Your task to perform on an android device: Search for the best custom wallets on Etsy. Image 0: 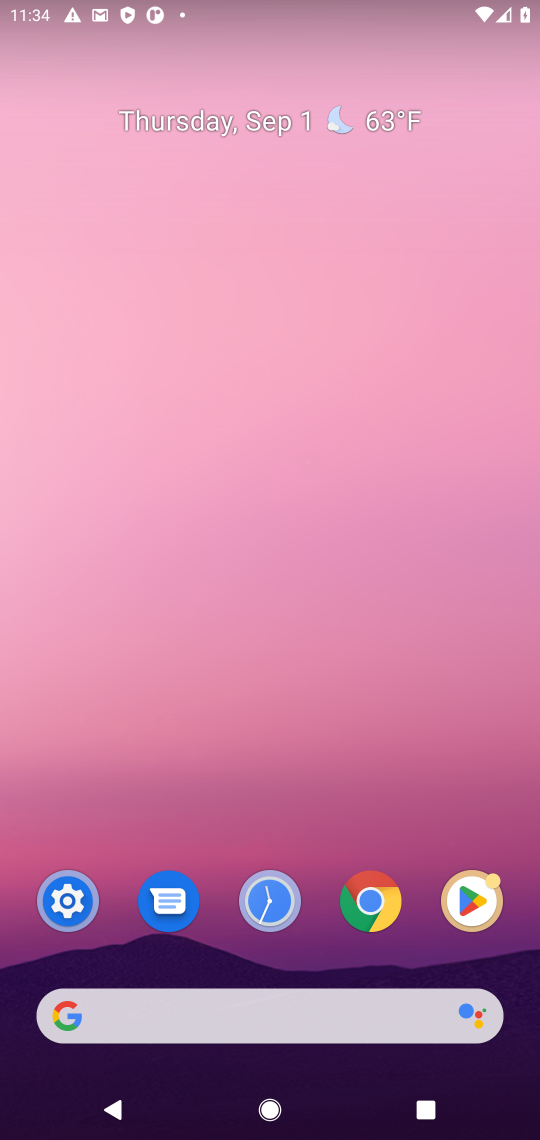
Step 0: click (346, 251)
Your task to perform on an android device: Search for the best custom wallets on Etsy. Image 1: 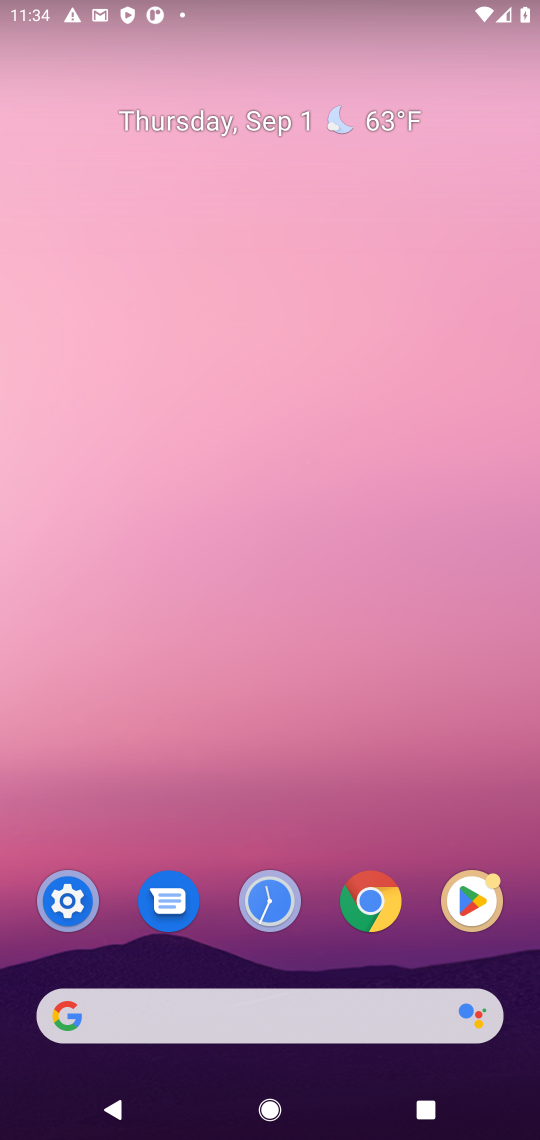
Step 1: drag from (242, 519) to (263, 271)
Your task to perform on an android device: Search for the best custom wallets on Etsy. Image 2: 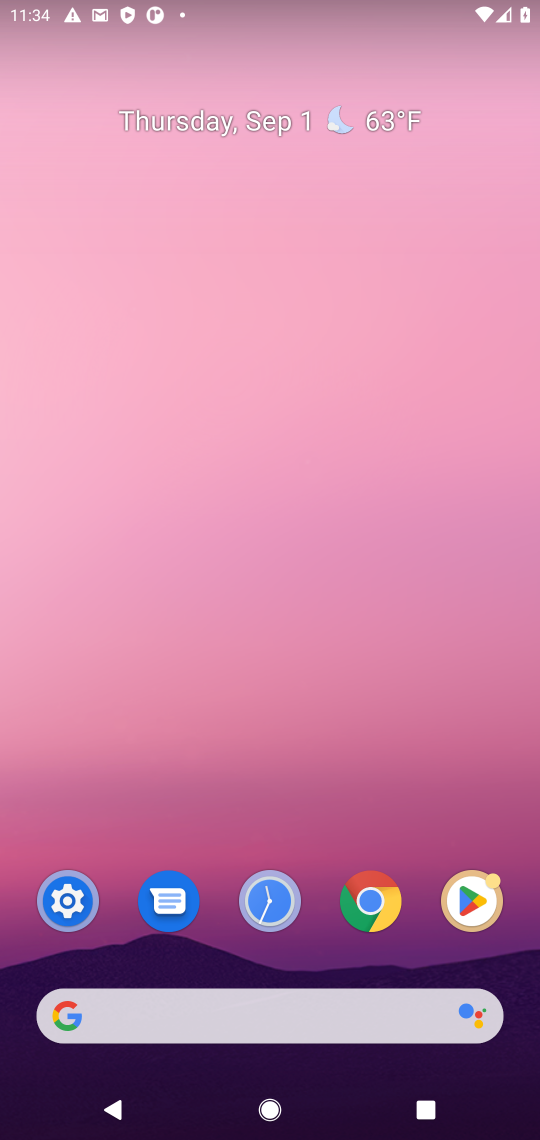
Step 2: drag from (252, 488) to (337, 410)
Your task to perform on an android device: Search for the best custom wallets on Etsy. Image 3: 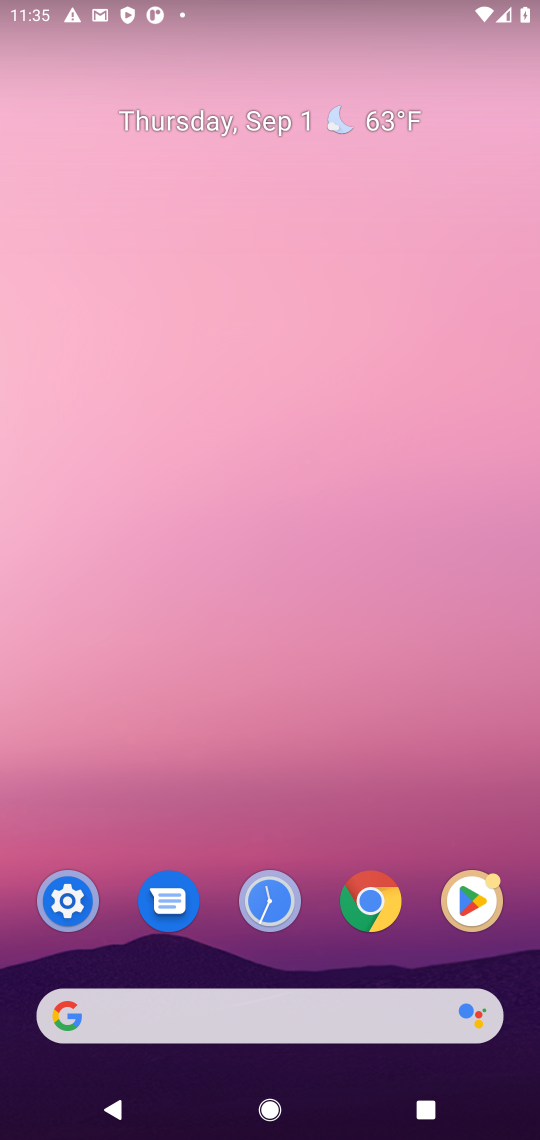
Step 3: click (338, 461)
Your task to perform on an android device: Search for the best custom wallets on Etsy. Image 4: 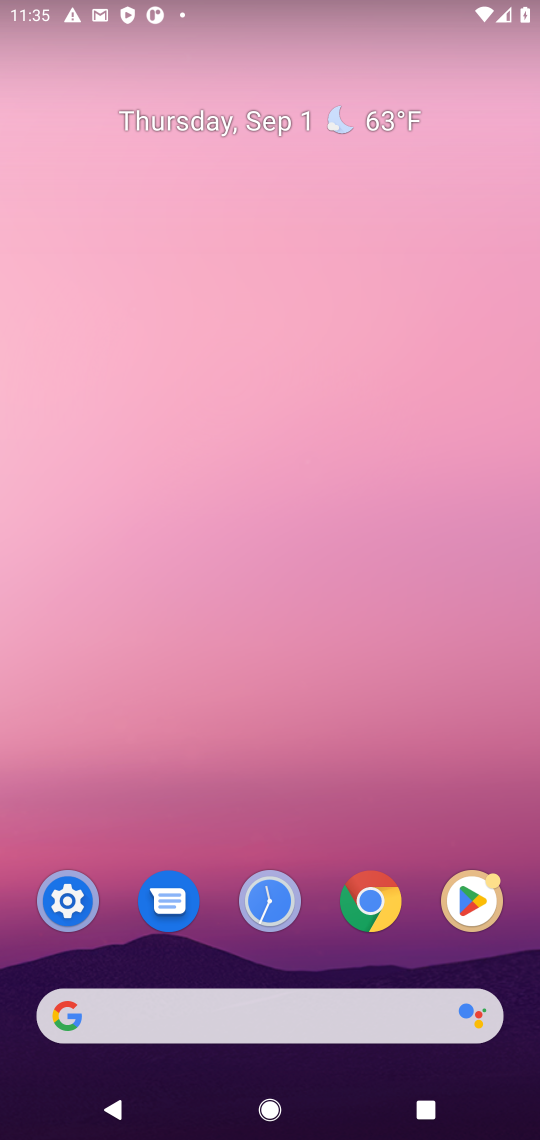
Step 4: click (292, 461)
Your task to perform on an android device: Search for the best custom wallets on Etsy. Image 5: 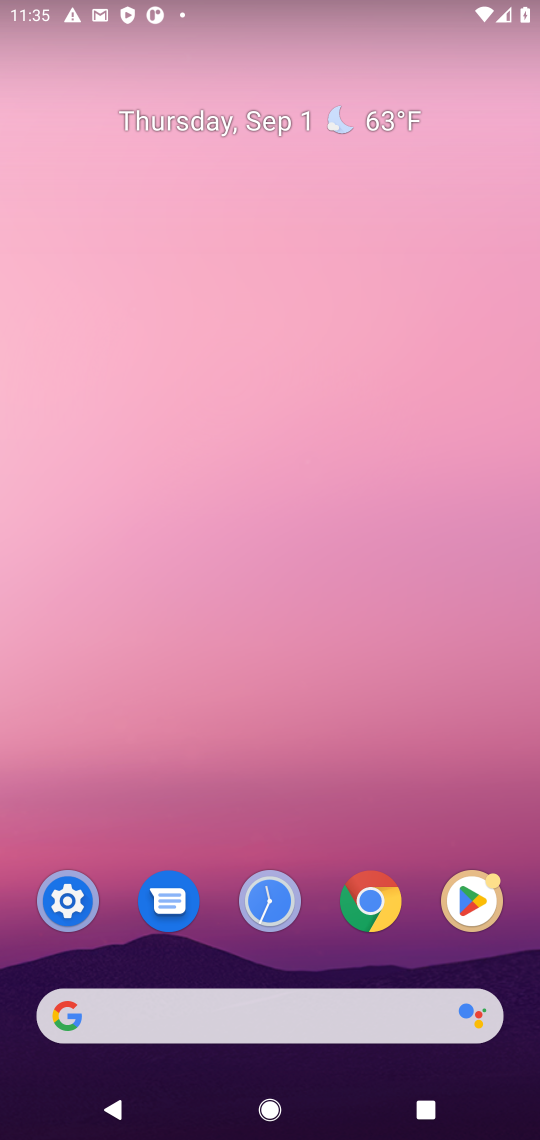
Step 5: drag from (272, 692) to (272, 406)
Your task to perform on an android device: Search for the best custom wallets on Etsy. Image 6: 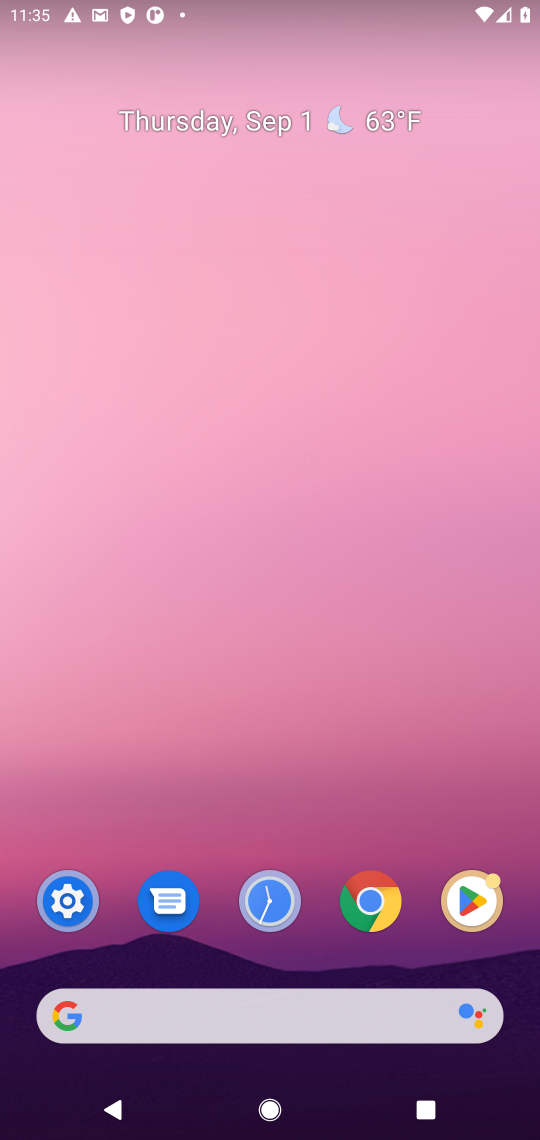
Step 6: drag from (244, 318) to (208, 375)
Your task to perform on an android device: Search for the best custom wallets on Etsy. Image 7: 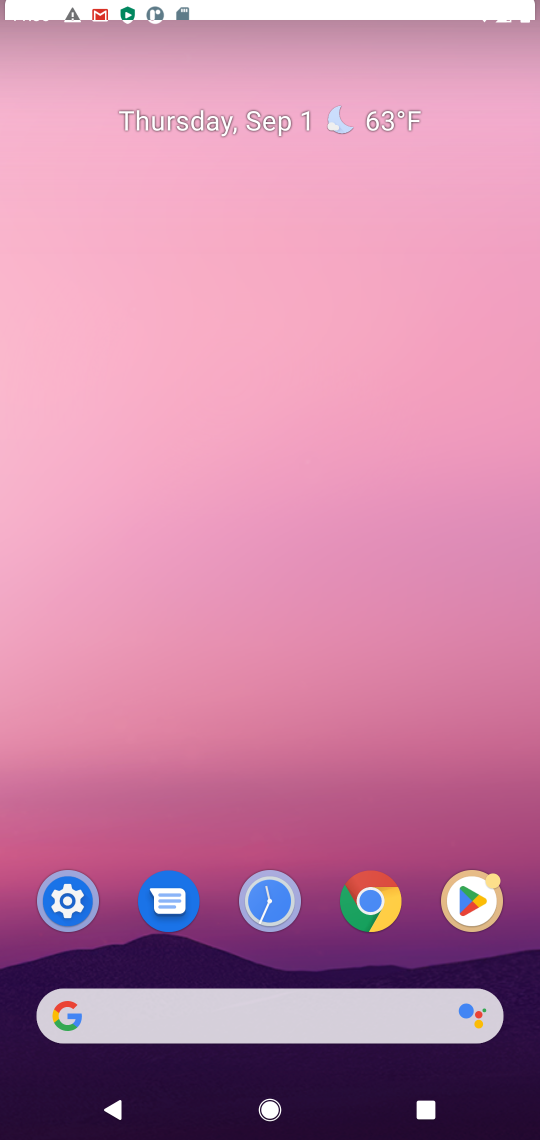
Step 7: click (268, 228)
Your task to perform on an android device: Search for the best custom wallets on Etsy. Image 8: 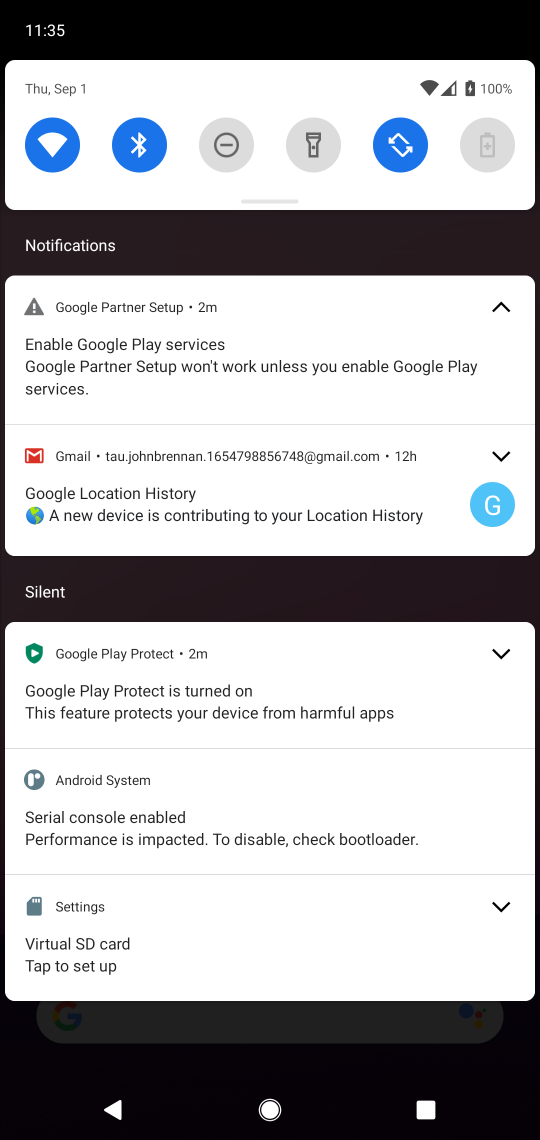
Step 8: click (313, 1070)
Your task to perform on an android device: Search for the best custom wallets on Etsy. Image 9: 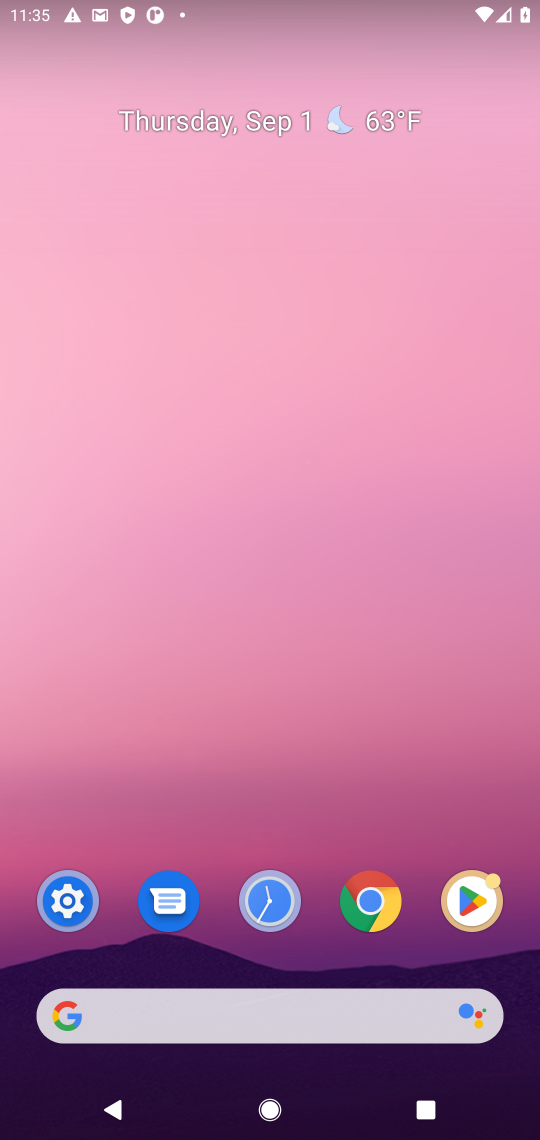
Step 9: drag from (213, 984) to (284, 580)
Your task to perform on an android device: Search for the best custom wallets on Etsy. Image 10: 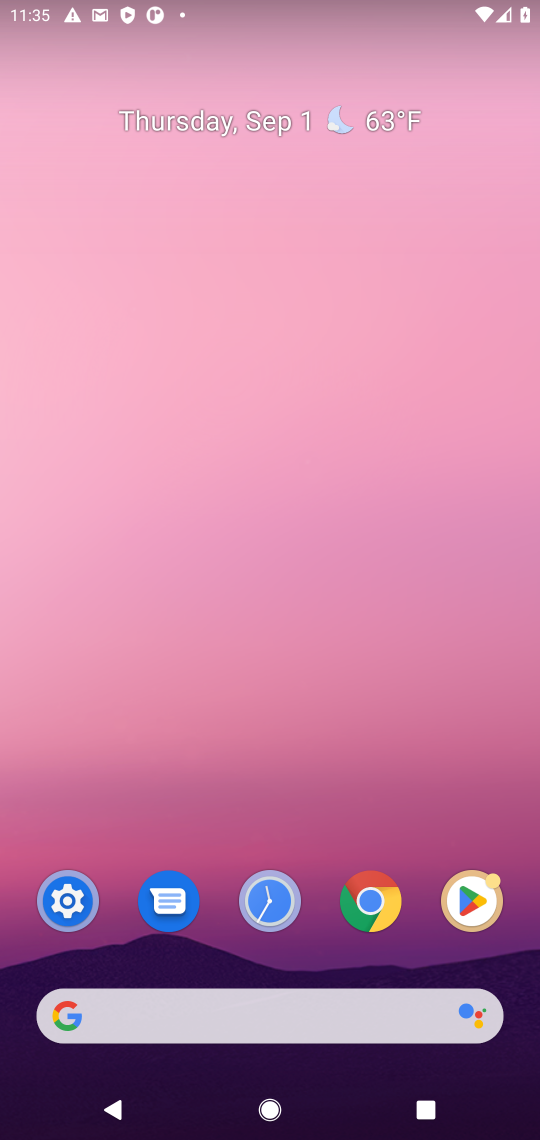
Step 10: click (292, 57)
Your task to perform on an android device: Search for the best custom wallets on Etsy. Image 11: 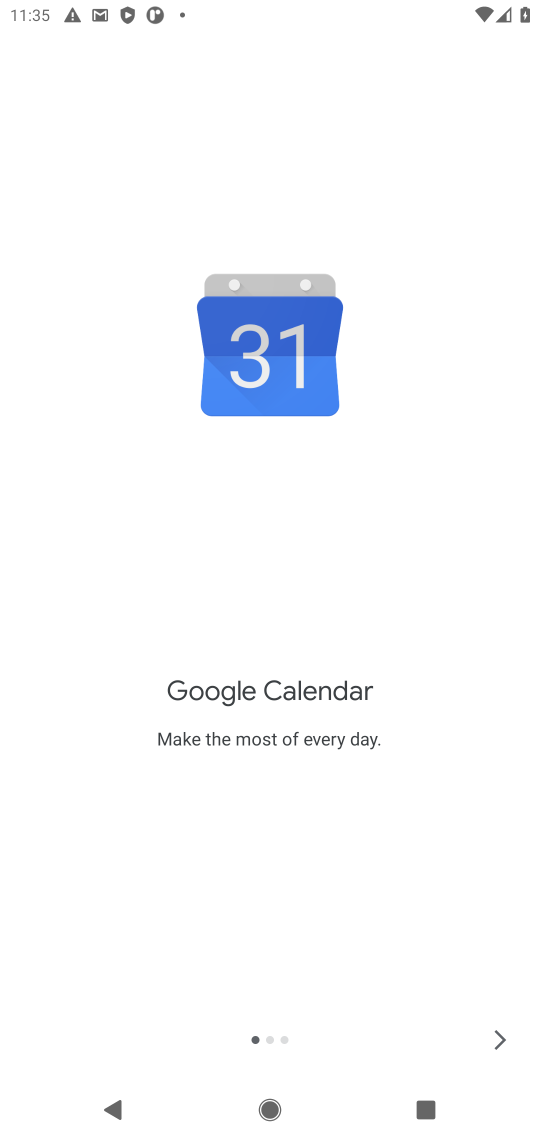
Step 11: click (483, 1033)
Your task to perform on an android device: Search for the best custom wallets on Etsy. Image 12: 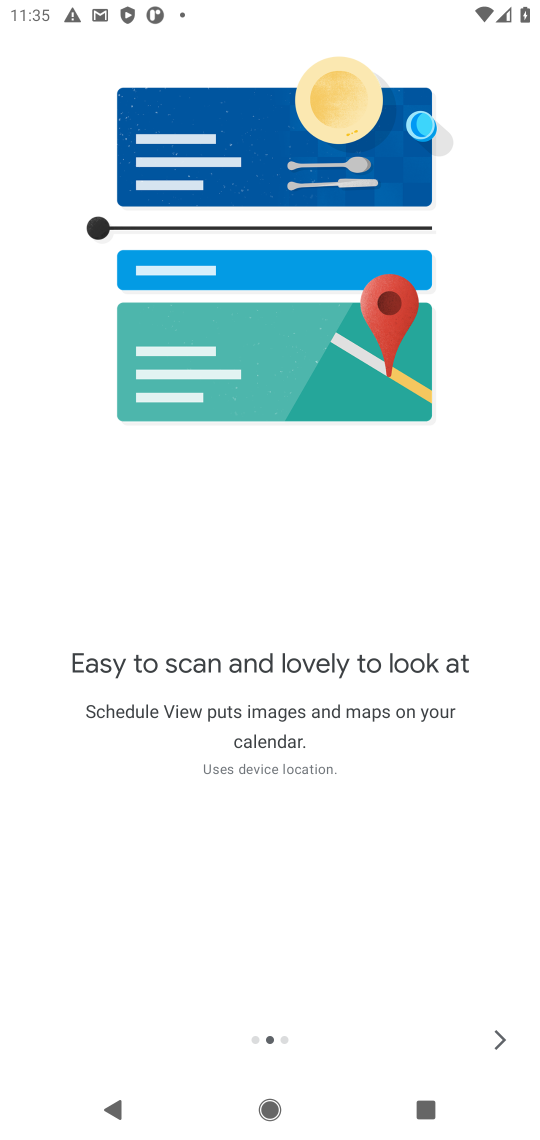
Step 12: press home button
Your task to perform on an android device: Search for the best custom wallets on Etsy. Image 13: 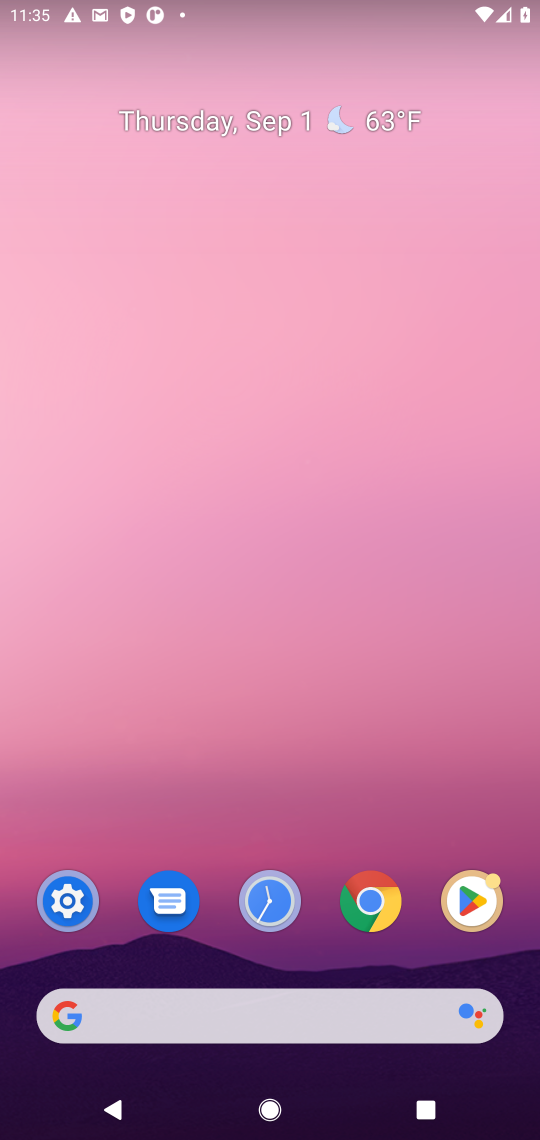
Step 13: drag from (253, 971) to (285, 325)
Your task to perform on an android device: Search for the best custom wallets on Etsy. Image 14: 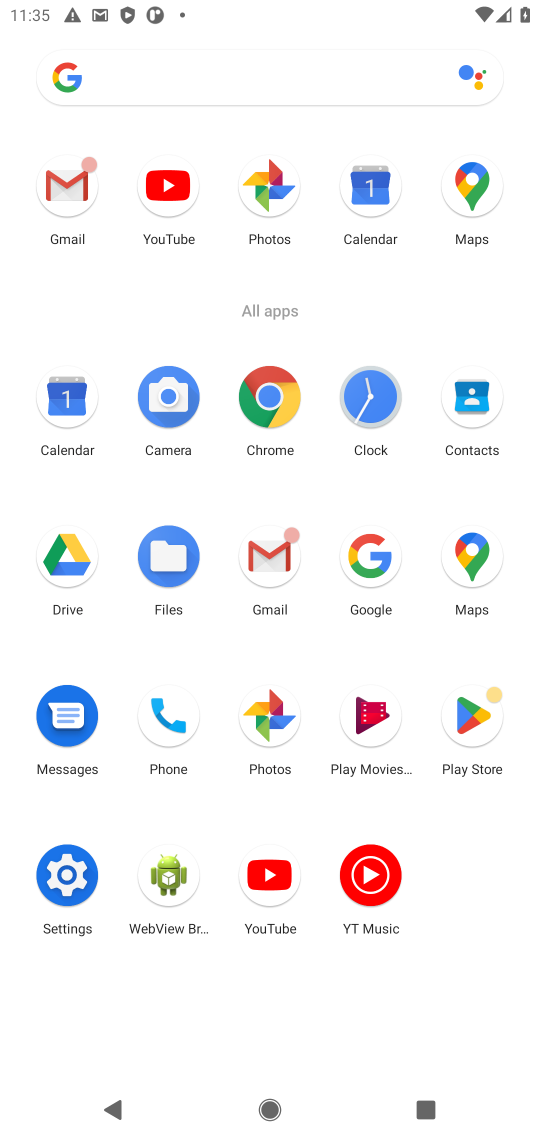
Step 14: drag from (371, 551) to (414, 370)
Your task to perform on an android device: Search for the best custom wallets on Etsy. Image 15: 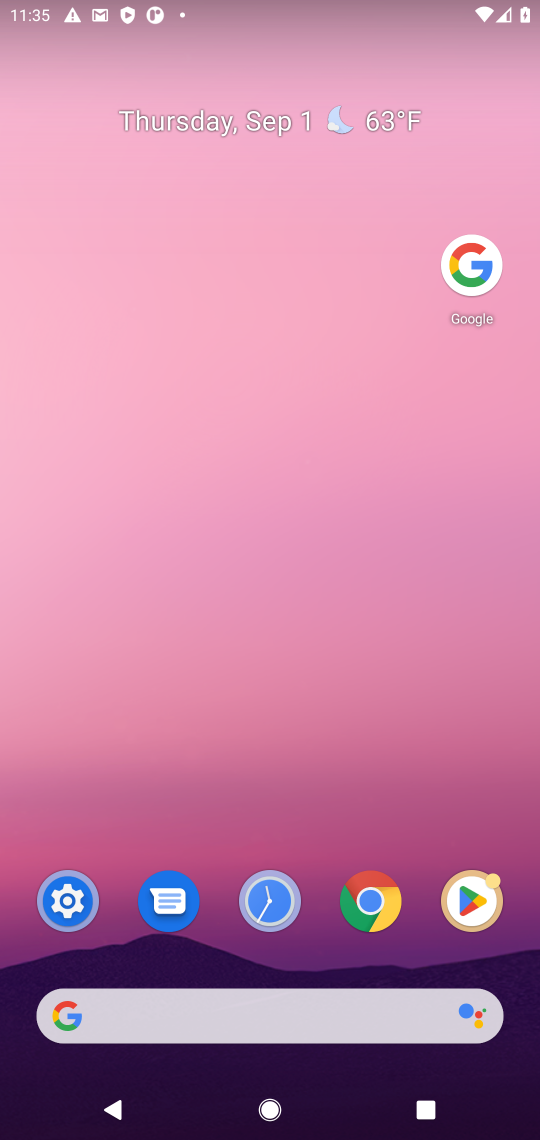
Step 15: click (467, 257)
Your task to perform on an android device: Search for the best custom wallets on Etsy. Image 16: 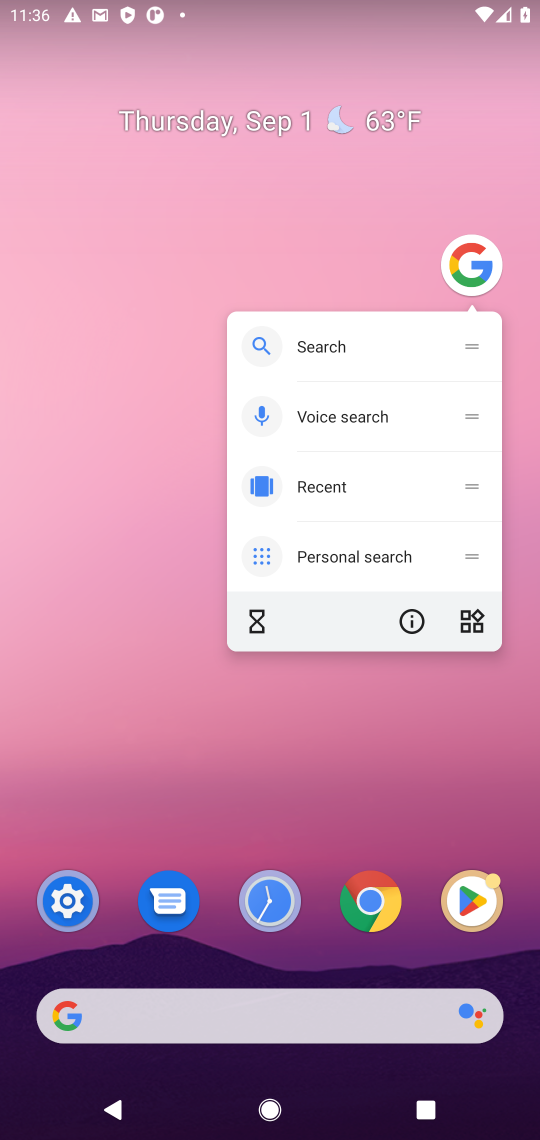
Step 16: click (464, 270)
Your task to perform on an android device: Search for the best custom wallets on Etsy. Image 17: 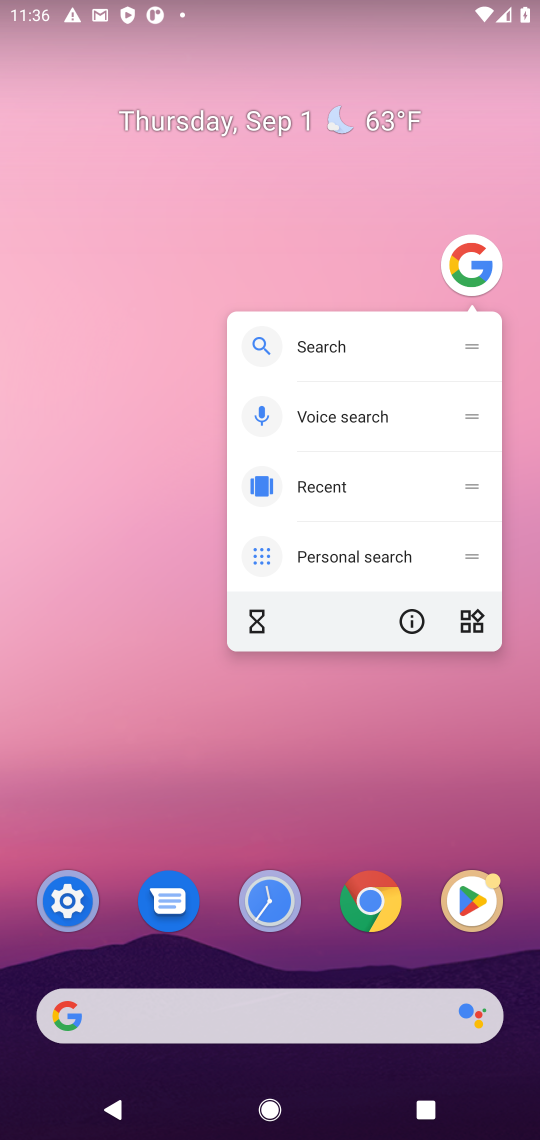
Step 17: click (455, 277)
Your task to perform on an android device: Search for the best custom wallets on Etsy. Image 18: 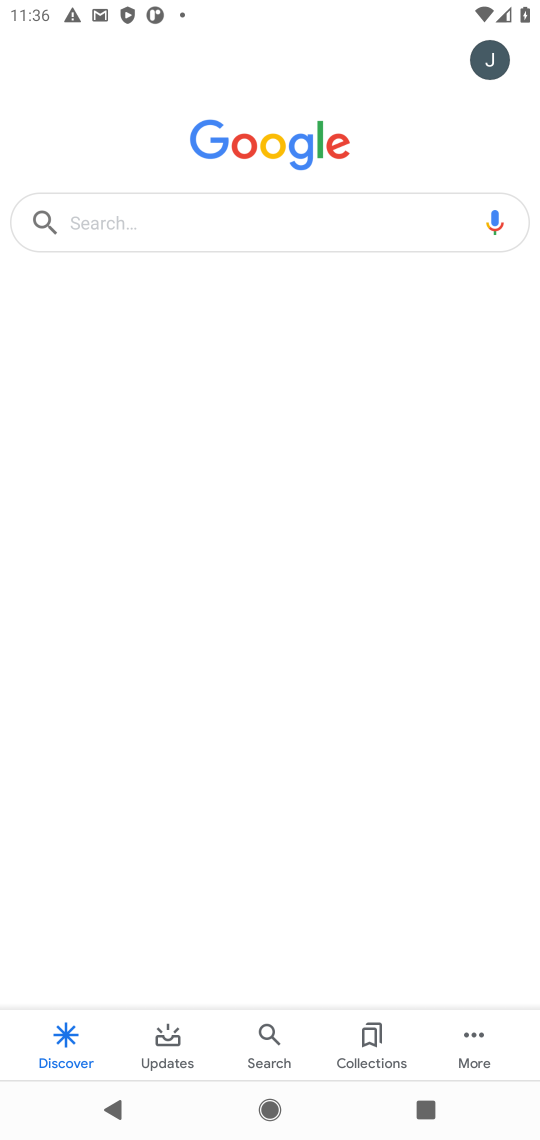
Step 18: click (458, 252)
Your task to perform on an android device: Search for the best custom wallets on Etsy. Image 19: 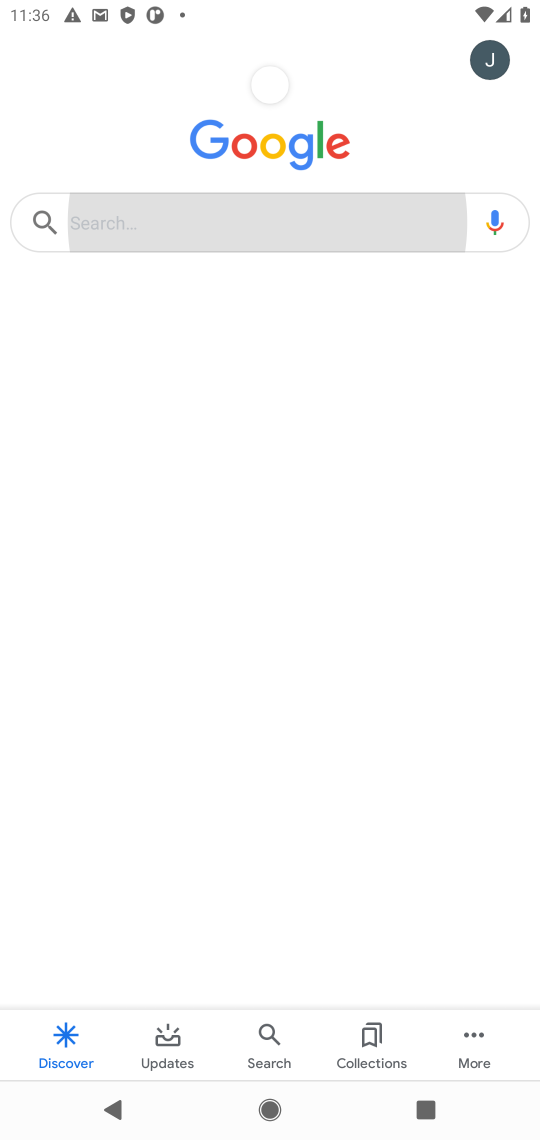
Step 19: click (186, 213)
Your task to perform on an android device: Search for the best custom wallets on Etsy. Image 20: 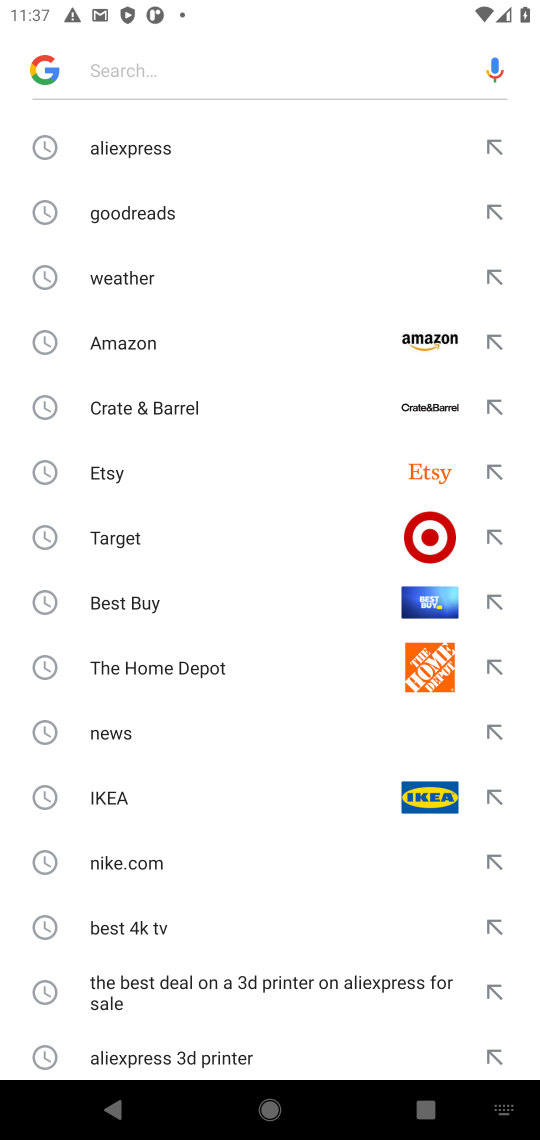
Step 20: click (230, 56)
Your task to perform on an android device: Search for the best custom wallets on Etsy. Image 21: 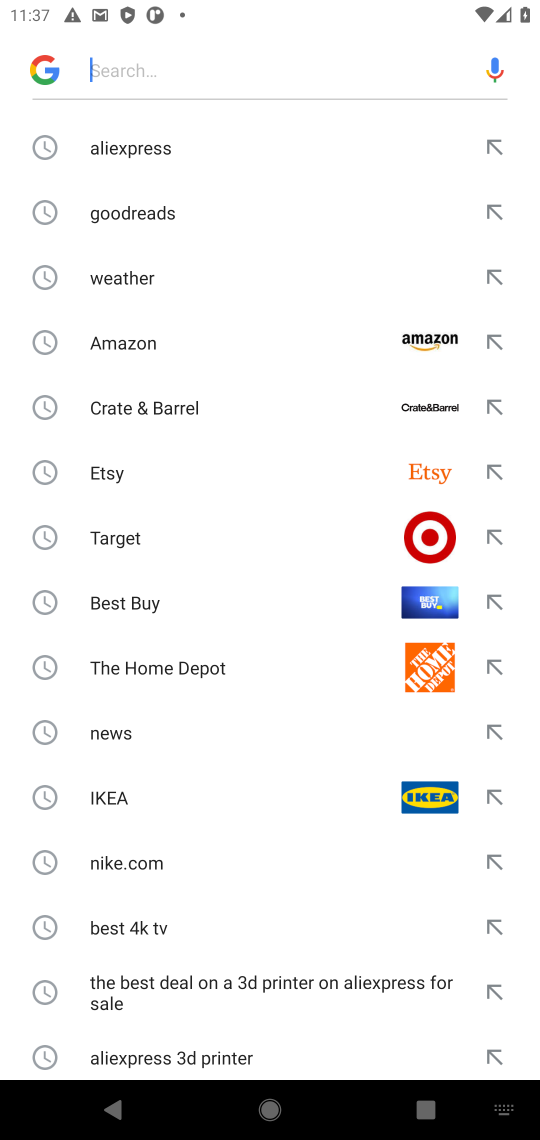
Step 21: type "the best custom wallets on Etsy "
Your task to perform on an android device: Search for the best custom wallets on Etsy. Image 22: 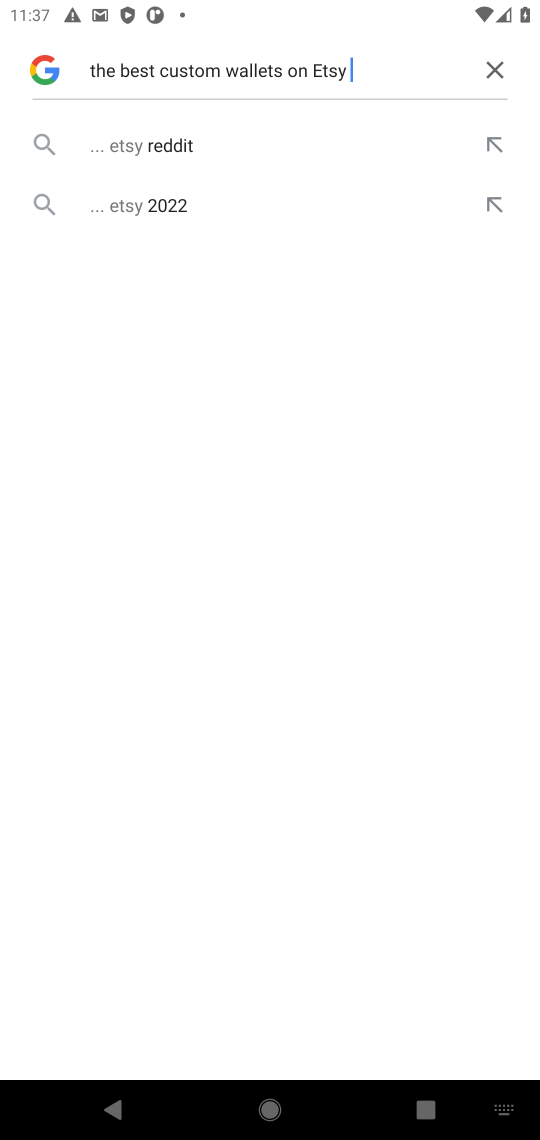
Step 22: click (156, 212)
Your task to perform on an android device: Search for the best custom wallets on Etsy. Image 23: 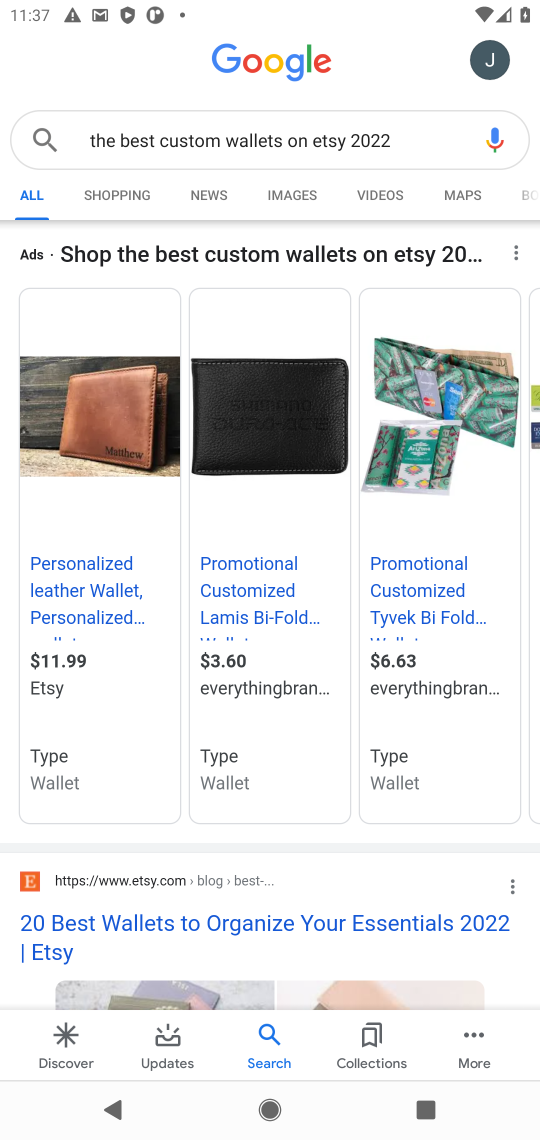
Step 23: drag from (323, 667) to (380, 445)
Your task to perform on an android device: Search for the best custom wallets on Etsy. Image 24: 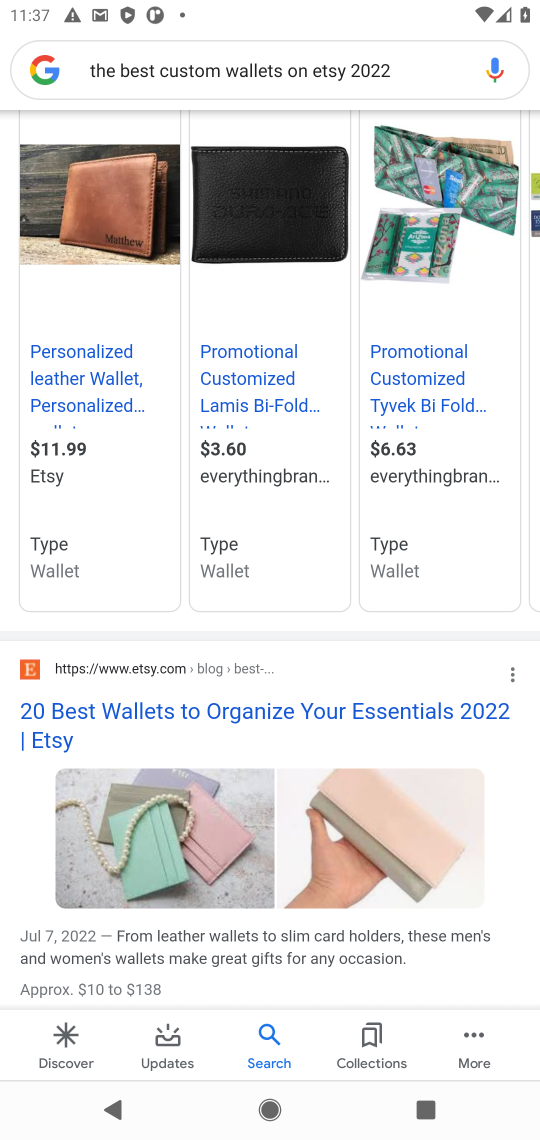
Step 24: drag from (240, 894) to (304, 389)
Your task to perform on an android device: Search for the best custom wallets on Etsy. Image 25: 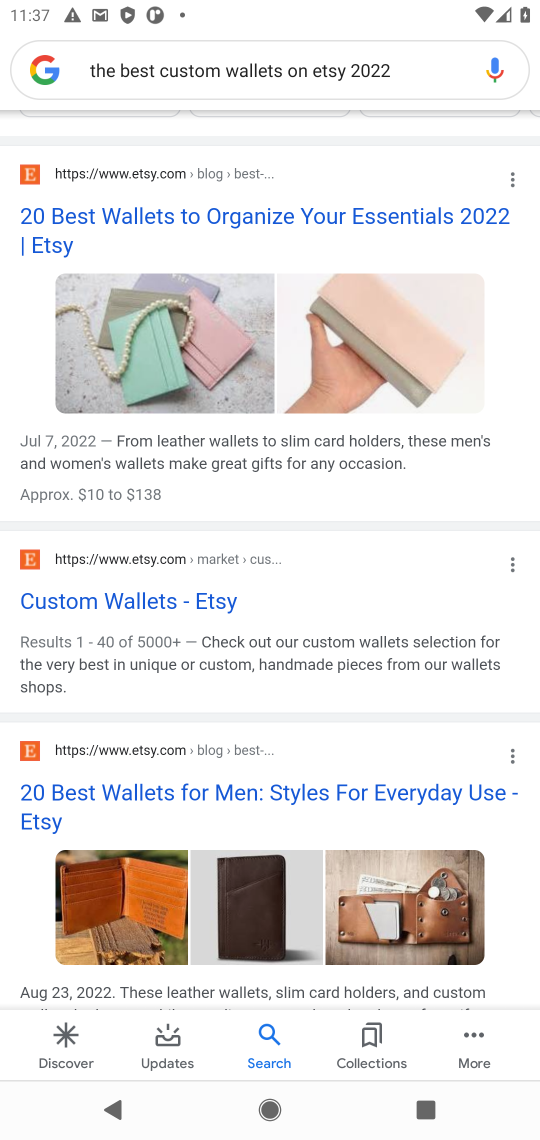
Step 25: click (84, 601)
Your task to perform on an android device: Search for the best custom wallets on Etsy. Image 26: 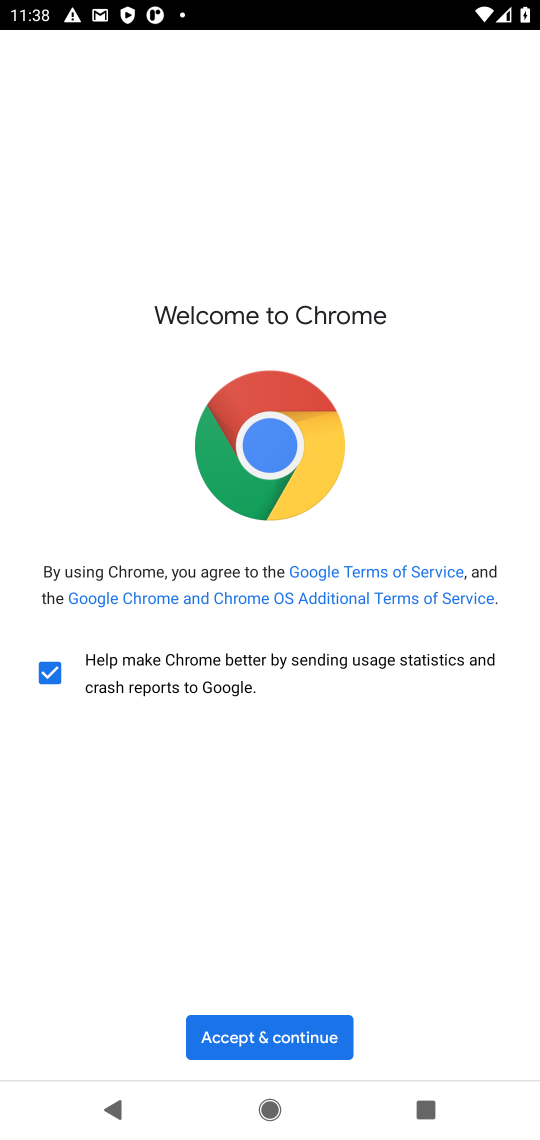
Step 26: click (270, 1019)
Your task to perform on an android device: Search for the best custom wallets on Etsy. Image 27: 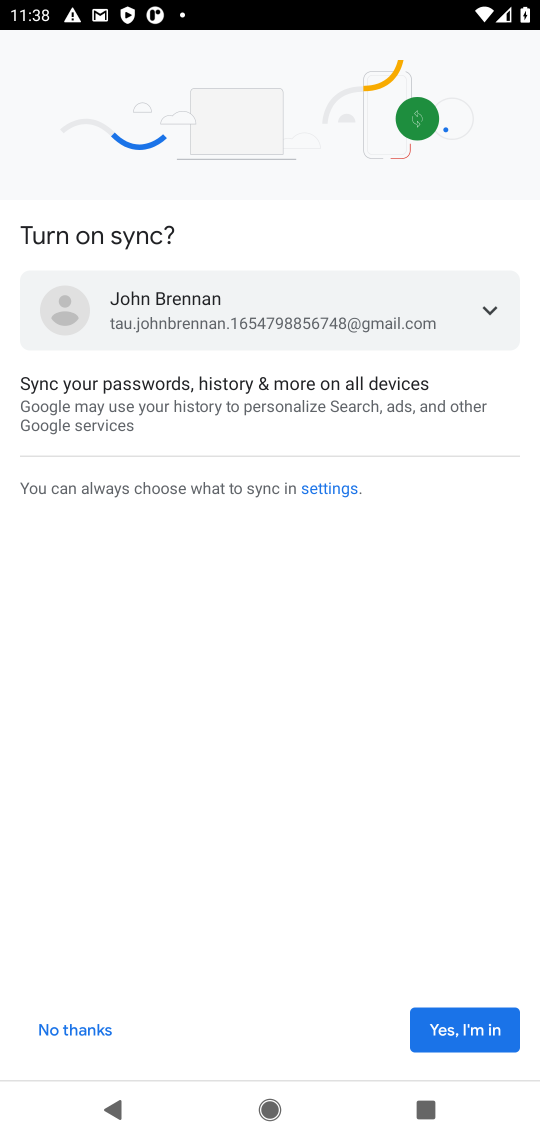
Step 27: click (442, 1036)
Your task to perform on an android device: Search for the best custom wallets on Etsy. Image 28: 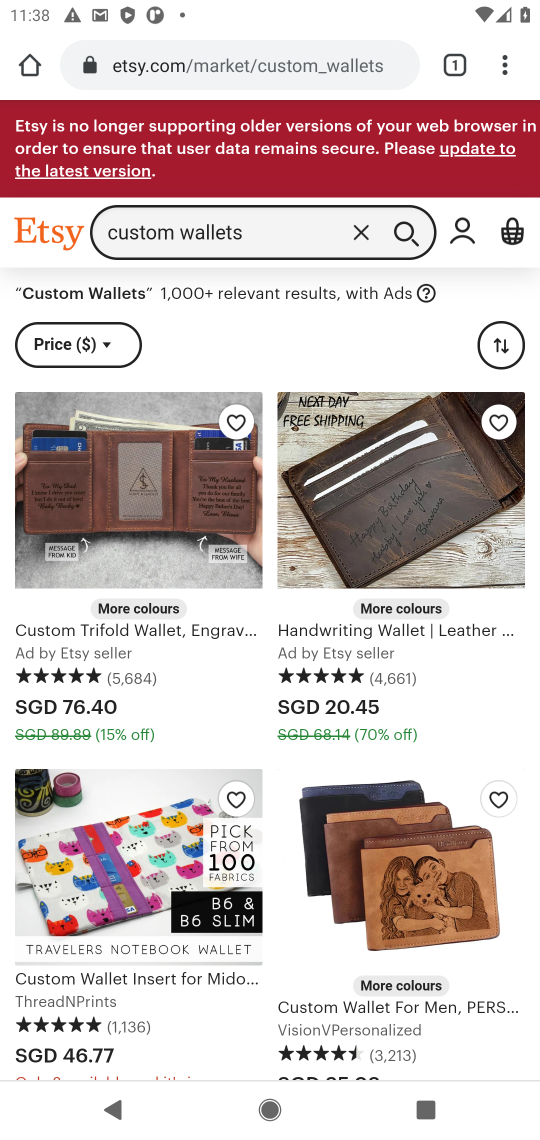
Step 28: task complete